Your task to perform on an android device: View the shopping cart on amazon. Add "logitech g903" to the cart on amazon Image 0: 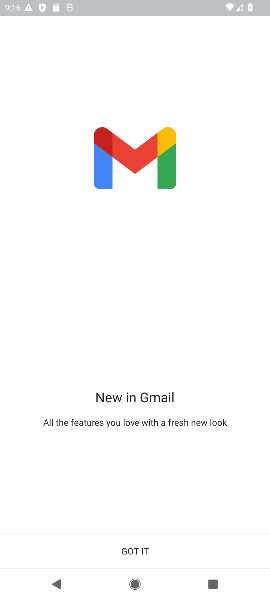
Step 0: press home button
Your task to perform on an android device: View the shopping cart on amazon. Add "logitech g903" to the cart on amazon Image 1: 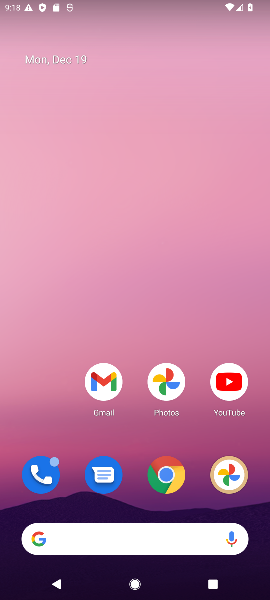
Step 1: task complete